Your task to perform on an android device: change notifications settings Image 0: 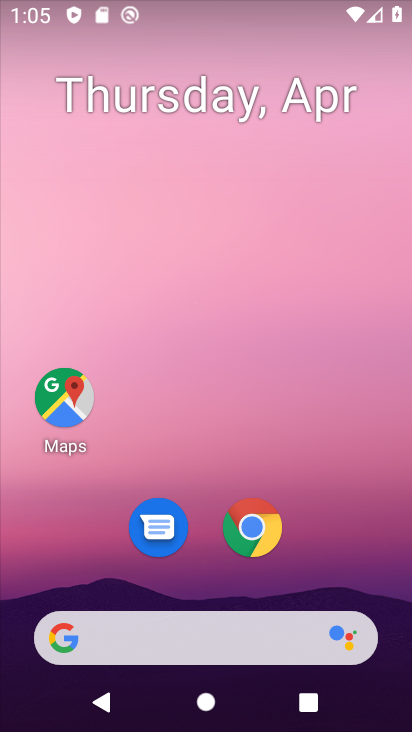
Step 0: drag from (385, 597) to (309, 133)
Your task to perform on an android device: change notifications settings Image 1: 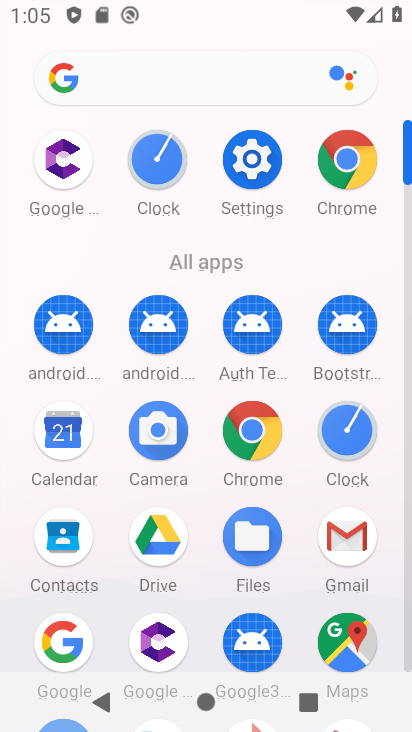
Step 1: click (407, 640)
Your task to perform on an android device: change notifications settings Image 2: 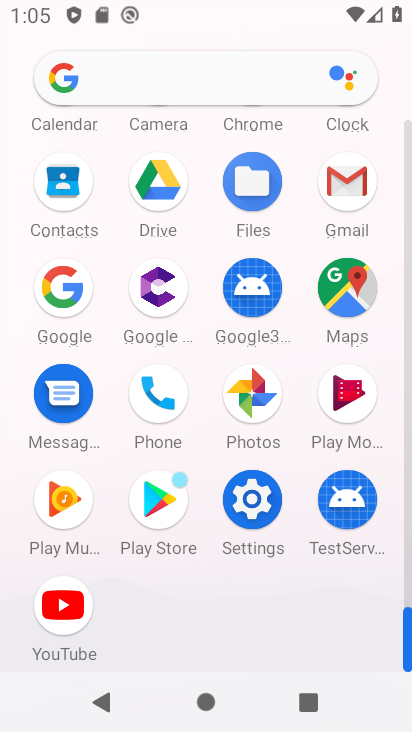
Step 2: click (251, 500)
Your task to perform on an android device: change notifications settings Image 3: 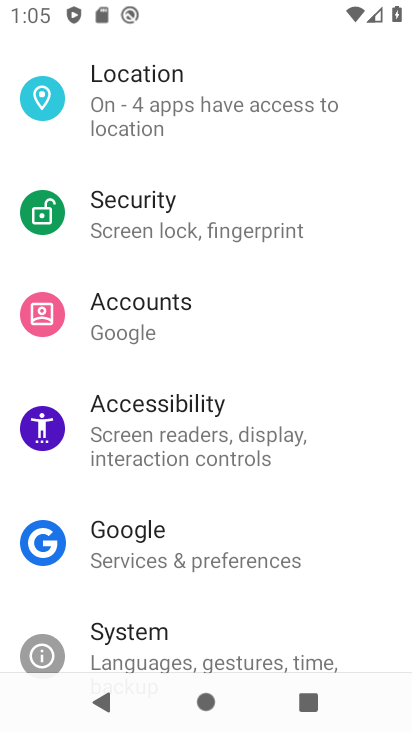
Step 3: drag from (364, 112) to (341, 334)
Your task to perform on an android device: change notifications settings Image 4: 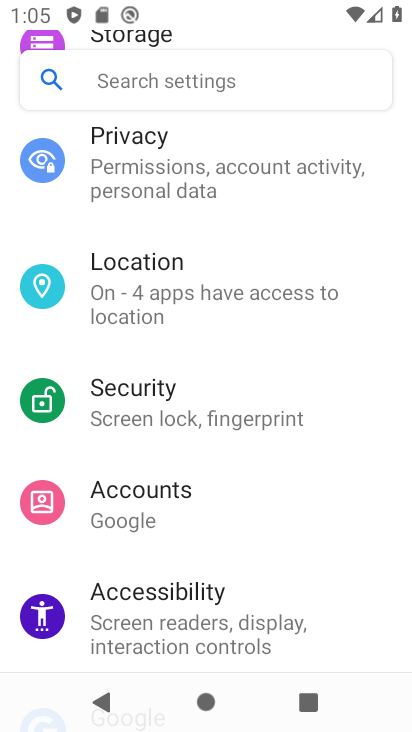
Step 4: drag from (356, 183) to (341, 389)
Your task to perform on an android device: change notifications settings Image 5: 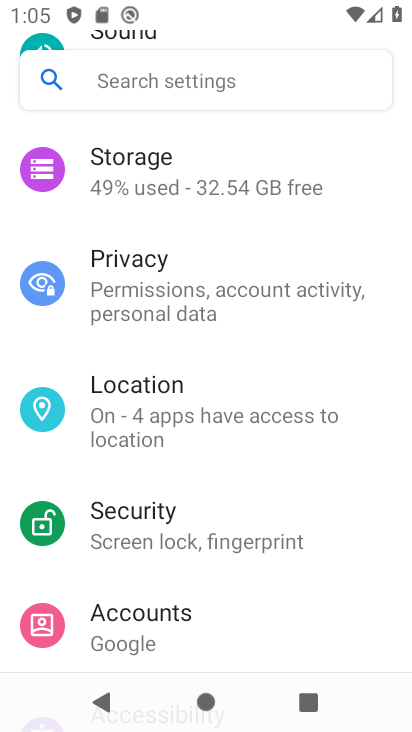
Step 5: drag from (364, 166) to (365, 356)
Your task to perform on an android device: change notifications settings Image 6: 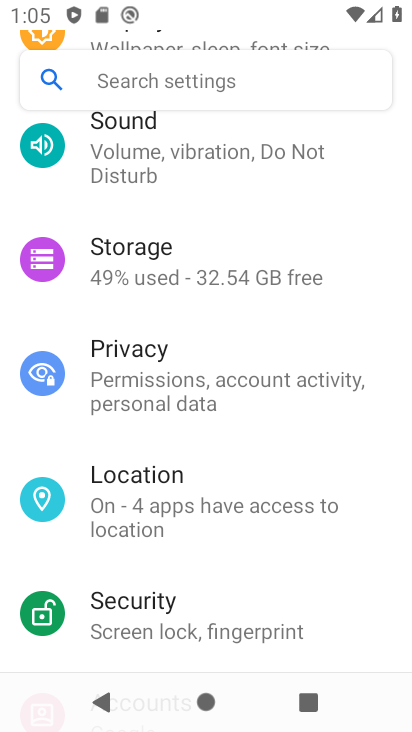
Step 6: drag from (349, 171) to (343, 391)
Your task to perform on an android device: change notifications settings Image 7: 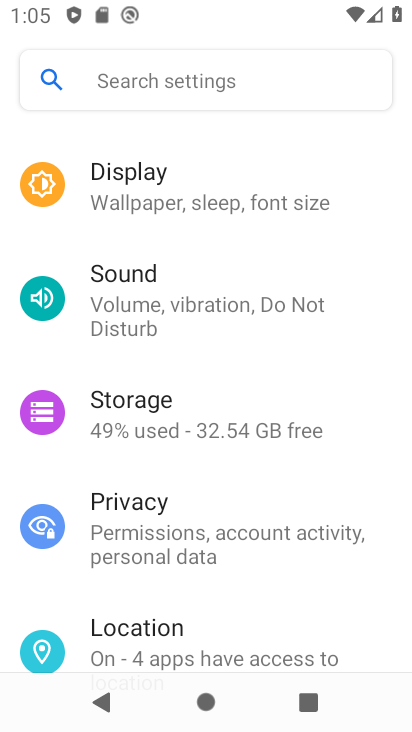
Step 7: drag from (357, 189) to (349, 409)
Your task to perform on an android device: change notifications settings Image 8: 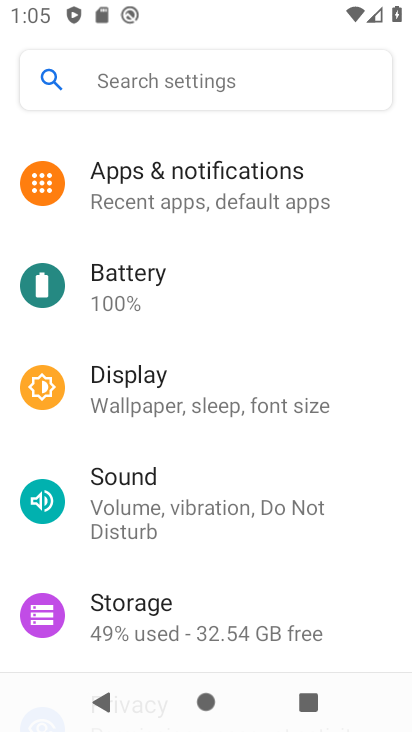
Step 8: click (157, 171)
Your task to perform on an android device: change notifications settings Image 9: 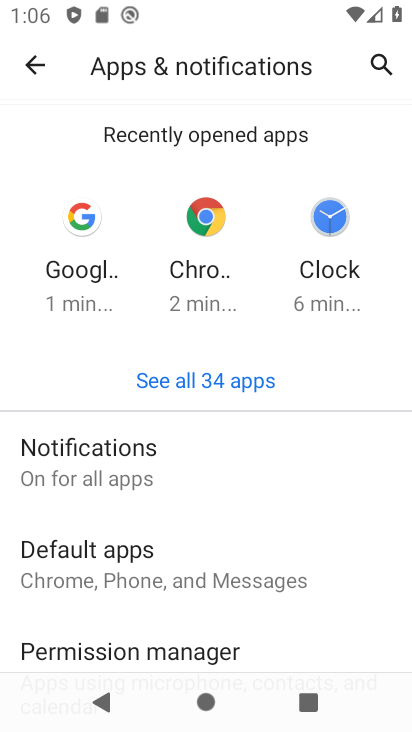
Step 9: click (116, 457)
Your task to perform on an android device: change notifications settings Image 10: 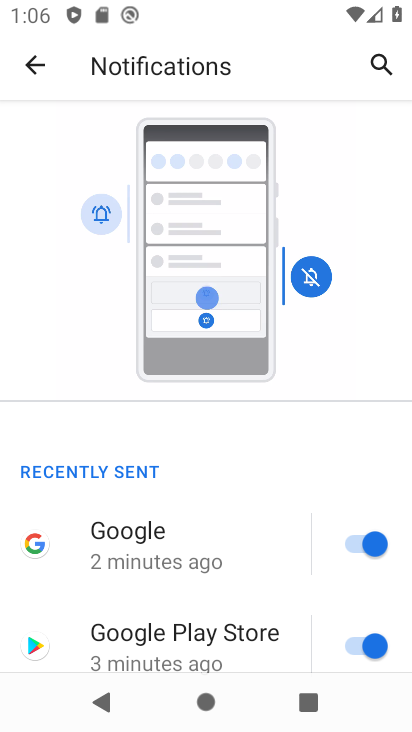
Step 10: drag from (307, 609) to (284, 224)
Your task to perform on an android device: change notifications settings Image 11: 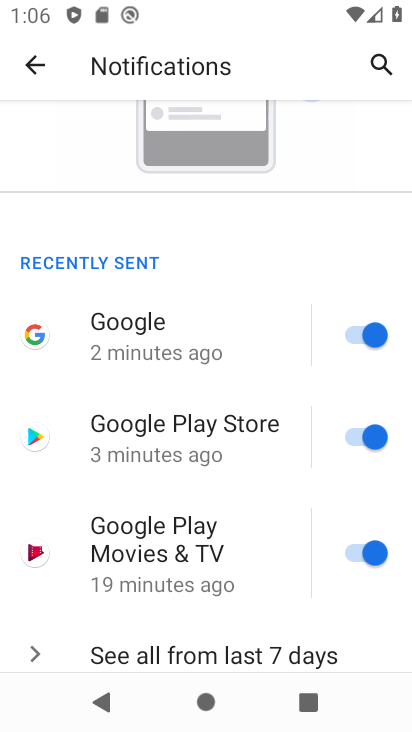
Step 11: drag from (298, 621) to (274, 170)
Your task to perform on an android device: change notifications settings Image 12: 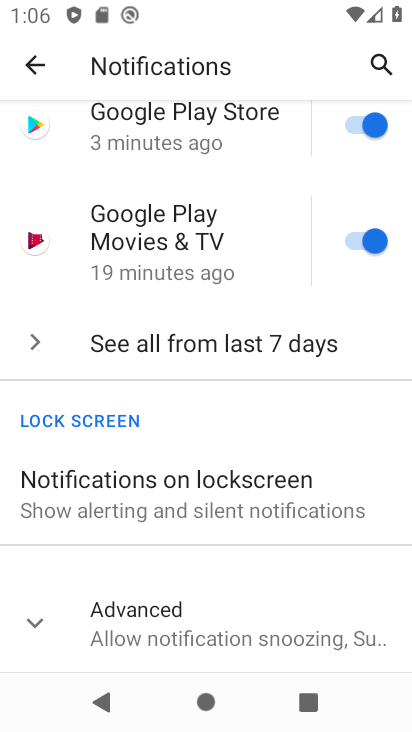
Step 12: click (30, 620)
Your task to perform on an android device: change notifications settings Image 13: 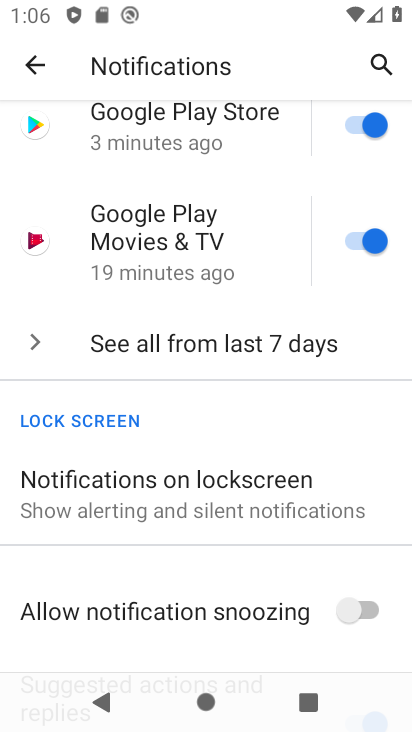
Step 13: drag from (279, 576) to (263, 303)
Your task to perform on an android device: change notifications settings Image 14: 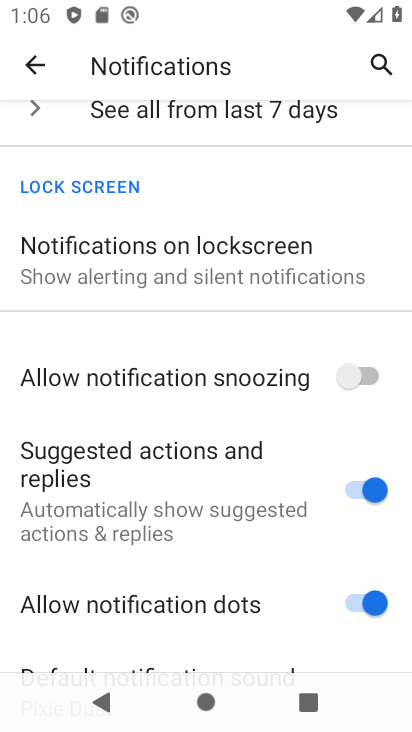
Step 14: click (371, 382)
Your task to perform on an android device: change notifications settings Image 15: 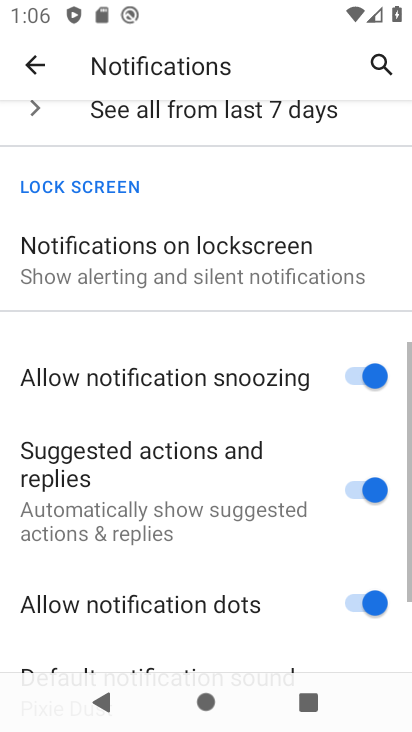
Step 15: click (354, 605)
Your task to perform on an android device: change notifications settings Image 16: 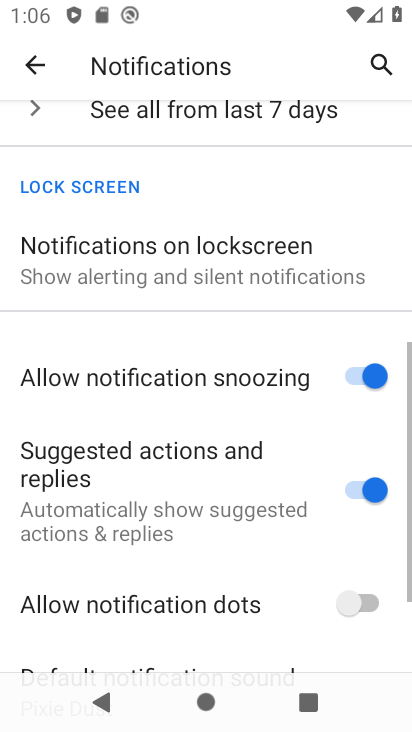
Step 16: click (187, 265)
Your task to perform on an android device: change notifications settings Image 17: 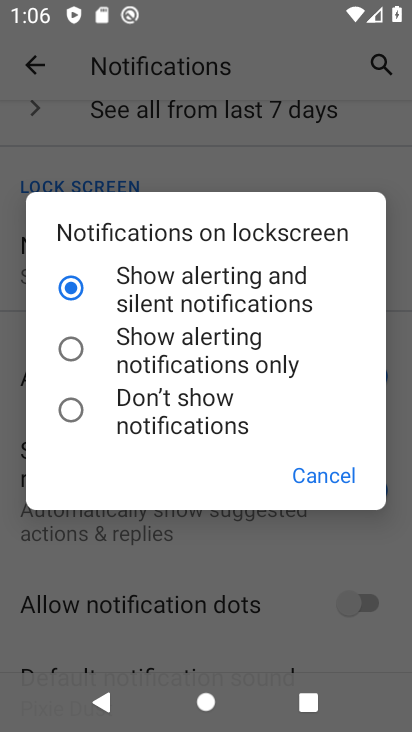
Step 17: click (72, 342)
Your task to perform on an android device: change notifications settings Image 18: 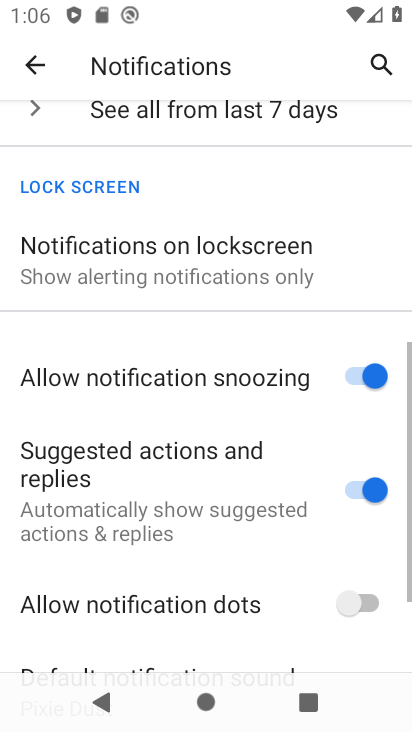
Step 18: task complete